Your task to perform on an android device: Search for pizza restaurants on Maps Image 0: 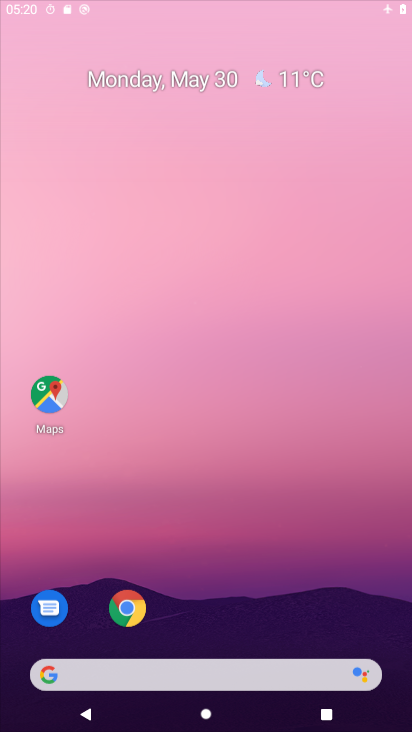
Step 0: click (126, 612)
Your task to perform on an android device: Search for pizza restaurants on Maps Image 1: 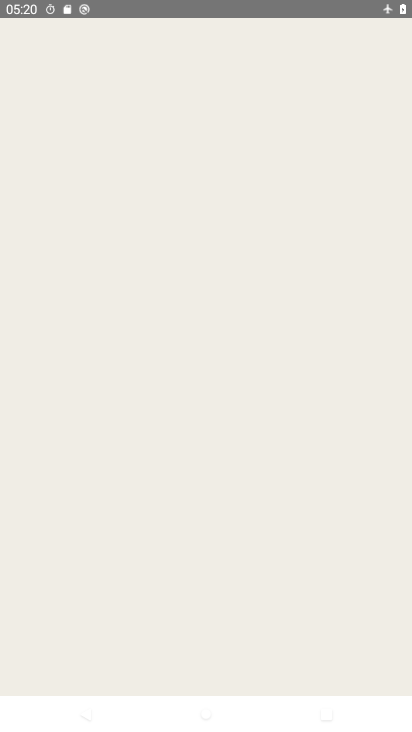
Step 1: press home button
Your task to perform on an android device: Search for pizza restaurants on Maps Image 2: 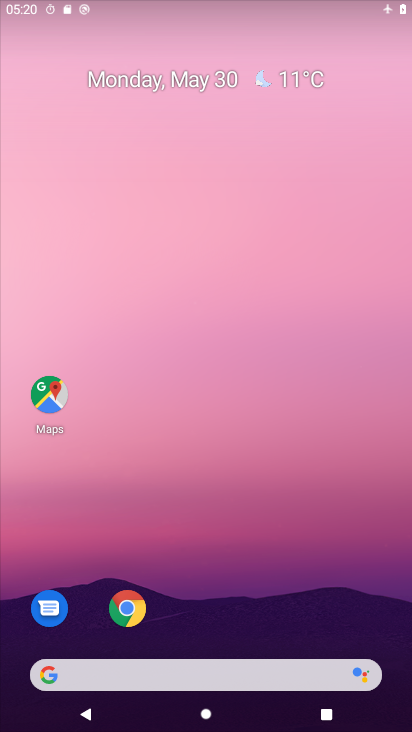
Step 2: click (47, 395)
Your task to perform on an android device: Search for pizza restaurants on Maps Image 3: 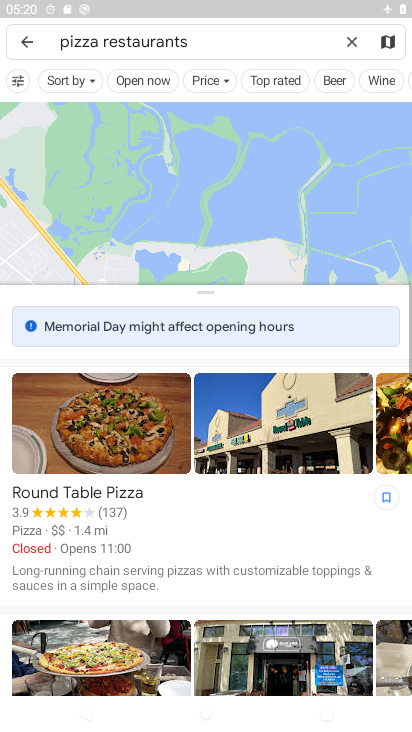
Step 3: task complete